Your task to perform on an android device: What time is it in Paris? Image 0: 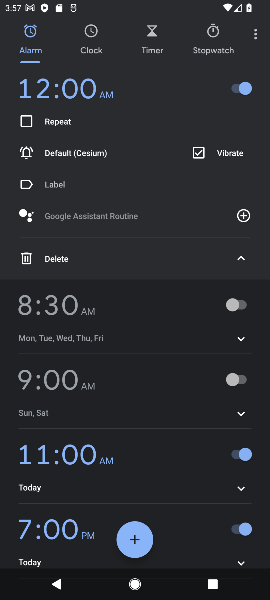
Step 0: press home button
Your task to perform on an android device: What time is it in Paris? Image 1: 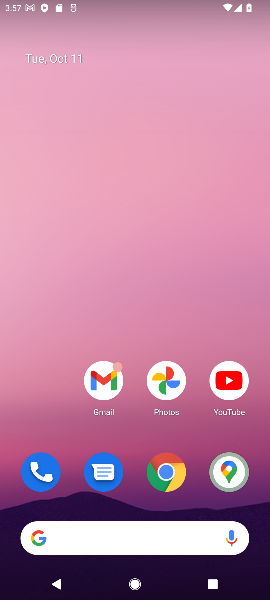
Step 1: type "What time is it in Paris?"
Your task to perform on an android device: What time is it in Paris? Image 2: 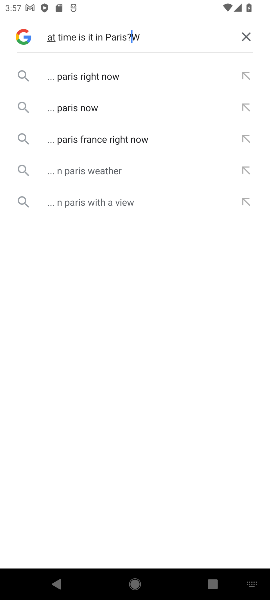
Step 2: click (246, 34)
Your task to perform on an android device: What time is it in Paris? Image 3: 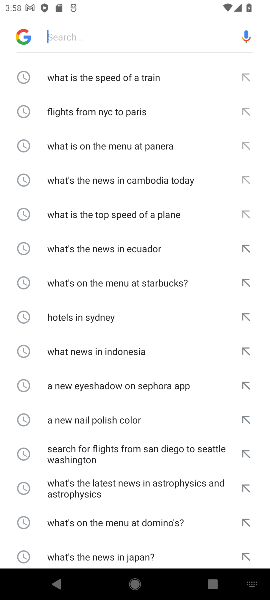
Step 3: type "What time is it in Paris?"
Your task to perform on an android device: What time is it in Paris? Image 4: 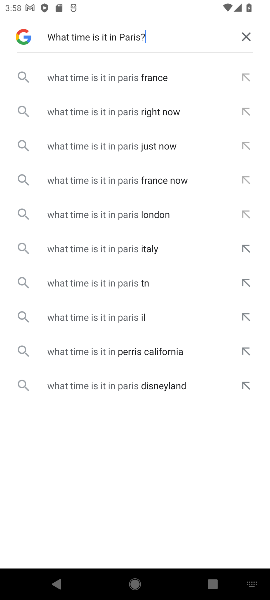
Step 4: click (122, 79)
Your task to perform on an android device: What time is it in Paris? Image 5: 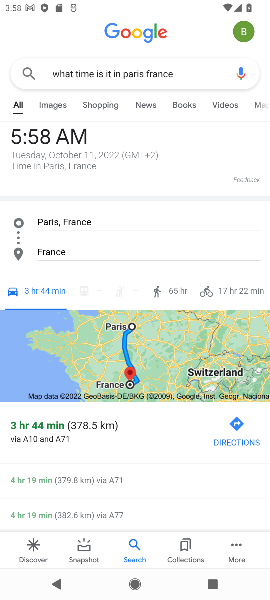
Step 5: task complete